Your task to perform on an android device: Open Google Maps Image 0: 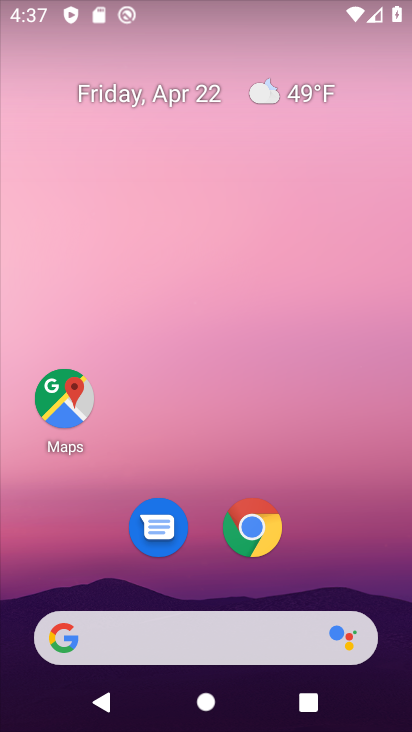
Step 0: drag from (271, 668) to (17, 16)
Your task to perform on an android device: Open Google Maps Image 1: 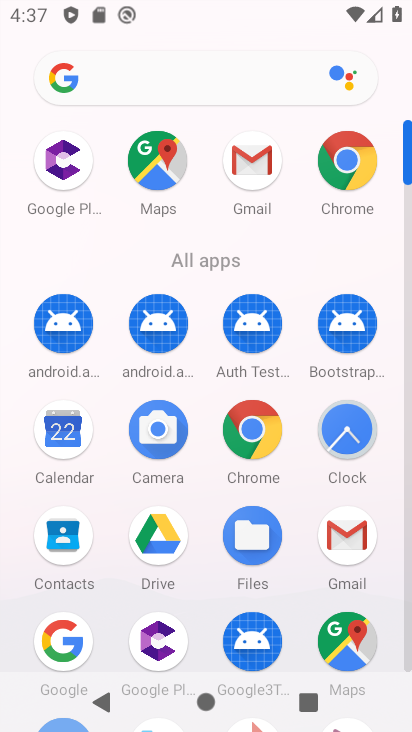
Step 1: click (161, 165)
Your task to perform on an android device: Open Google Maps Image 2: 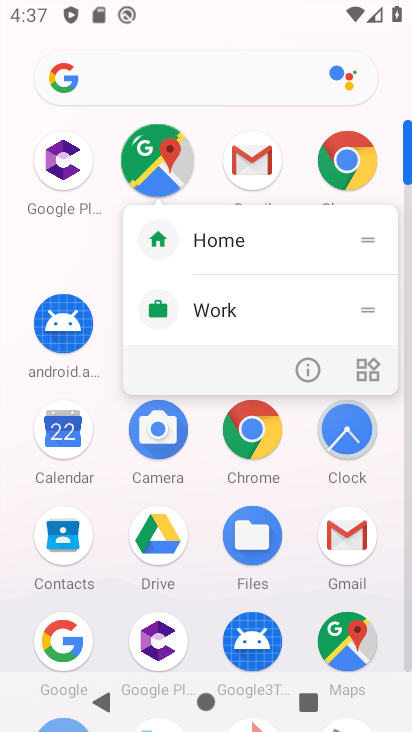
Step 2: click (154, 162)
Your task to perform on an android device: Open Google Maps Image 3: 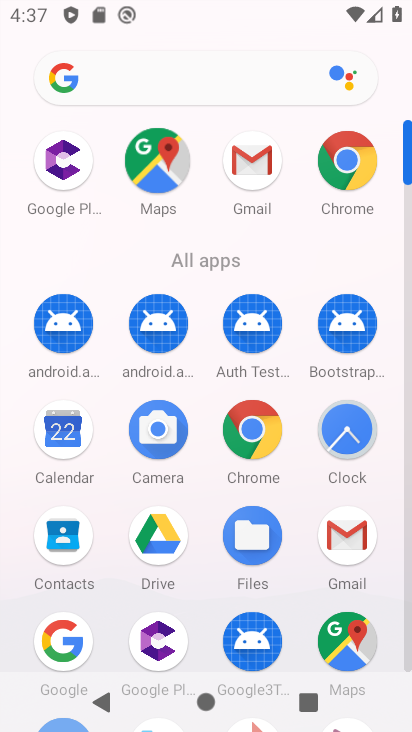
Step 3: click (157, 166)
Your task to perform on an android device: Open Google Maps Image 4: 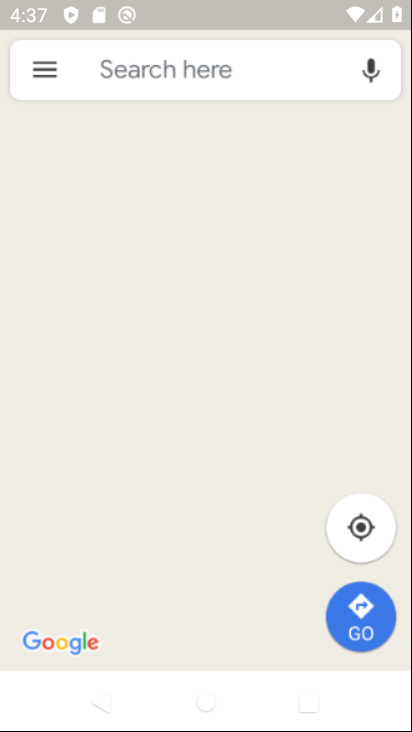
Step 4: click (157, 167)
Your task to perform on an android device: Open Google Maps Image 5: 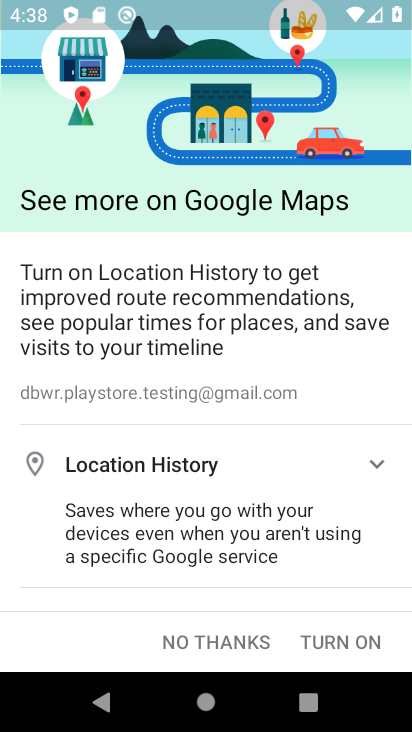
Step 5: click (208, 636)
Your task to perform on an android device: Open Google Maps Image 6: 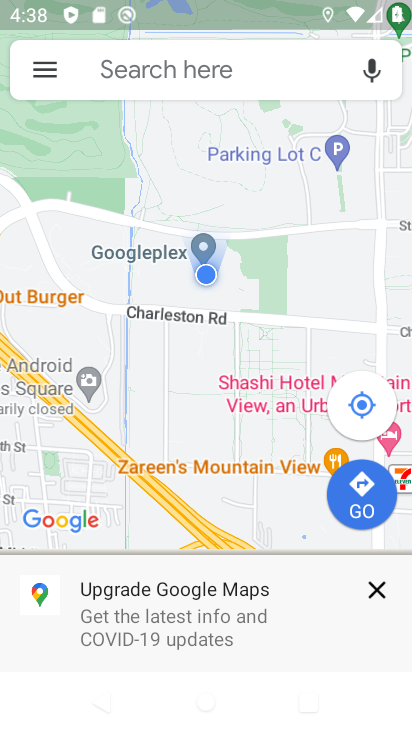
Step 6: task complete